Your task to perform on an android device: Do I have any events this weekend? Image 0: 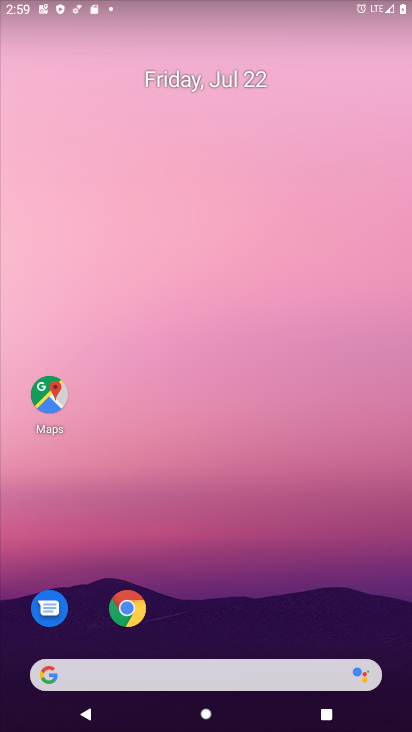
Step 0: drag from (287, 578) to (224, 0)
Your task to perform on an android device: Do I have any events this weekend? Image 1: 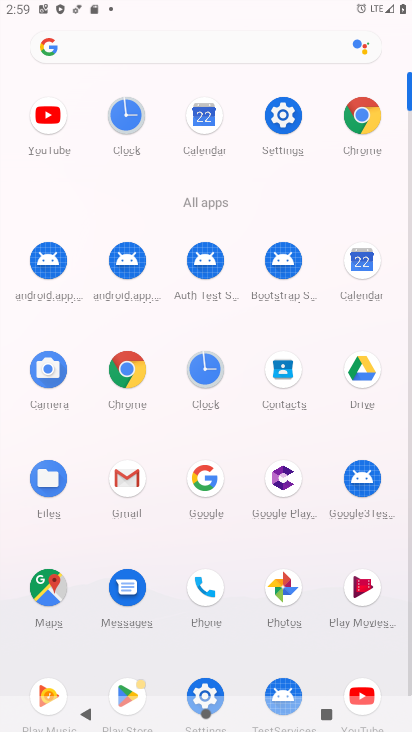
Step 1: click (368, 274)
Your task to perform on an android device: Do I have any events this weekend? Image 2: 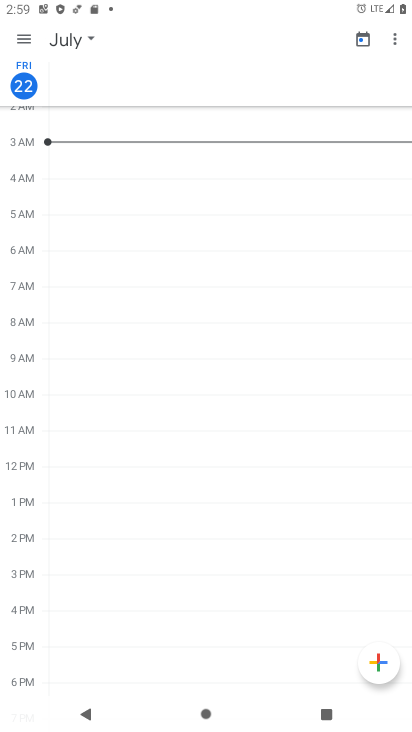
Step 2: click (30, 34)
Your task to perform on an android device: Do I have any events this weekend? Image 3: 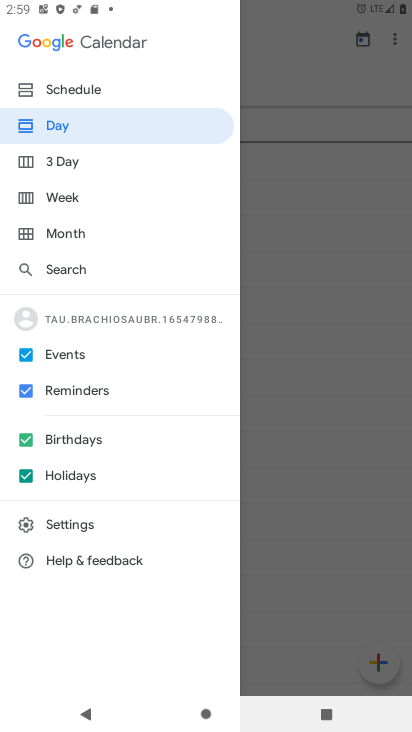
Step 3: click (101, 161)
Your task to perform on an android device: Do I have any events this weekend? Image 4: 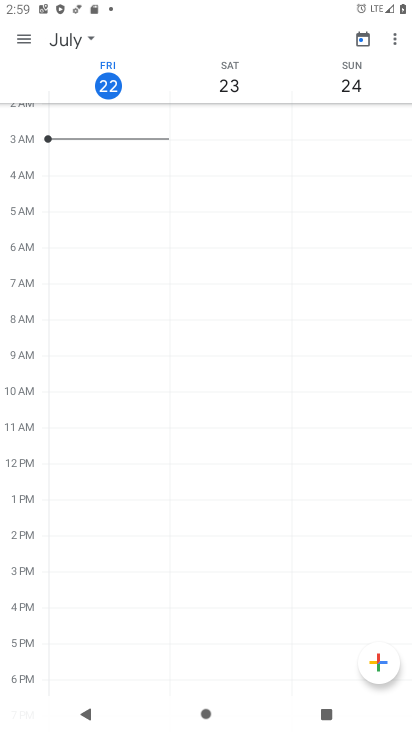
Step 4: click (78, 31)
Your task to perform on an android device: Do I have any events this weekend? Image 5: 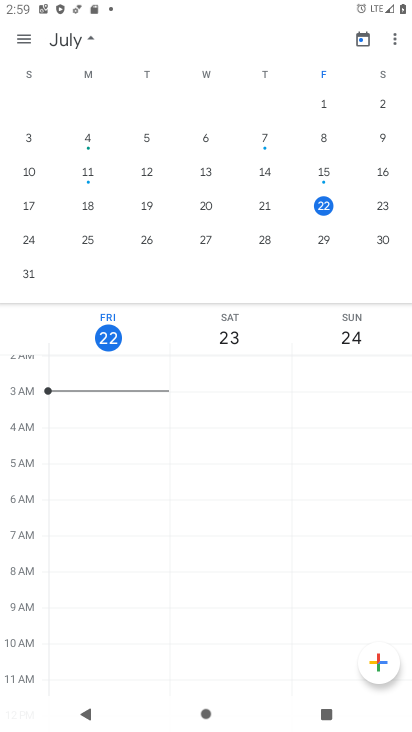
Step 5: click (384, 198)
Your task to perform on an android device: Do I have any events this weekend? Image 6: 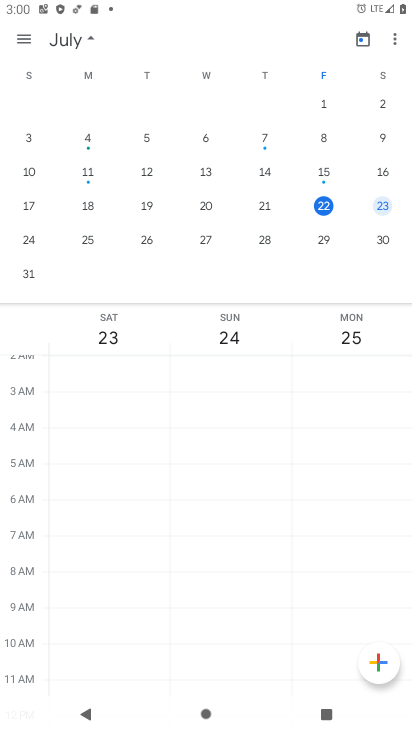
Step 6: task complete